Your task to perform on an android device: Go to notification settings Image 0: 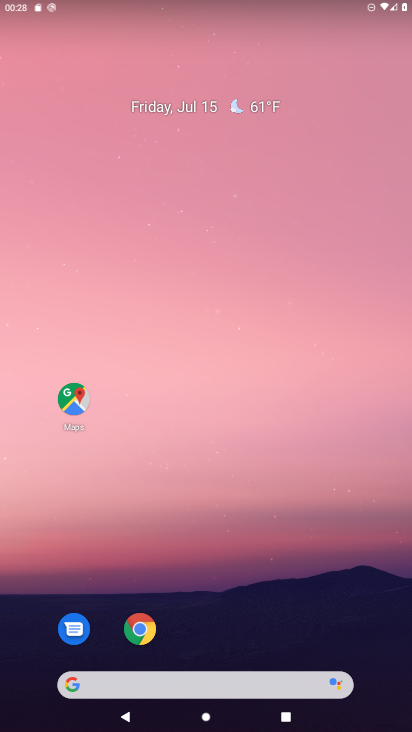
Step 0: drag from (182, 633) to (232, 24)
Your task to perform on an android device: Go to notification settings Image 1: 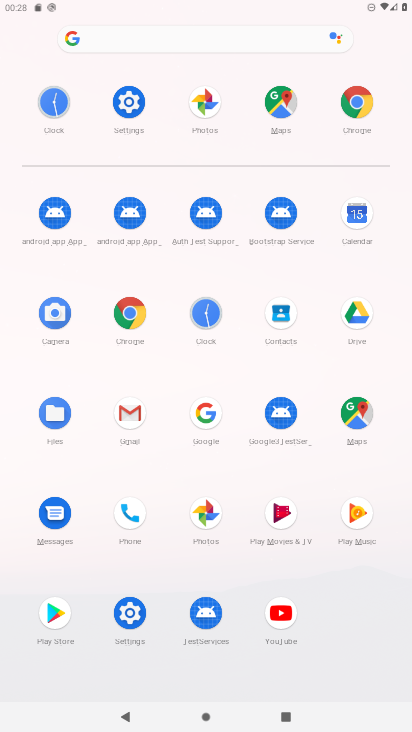
Step 1: click (125, 112)
Your task to perform on an android device: Go to notification settings Image 2: 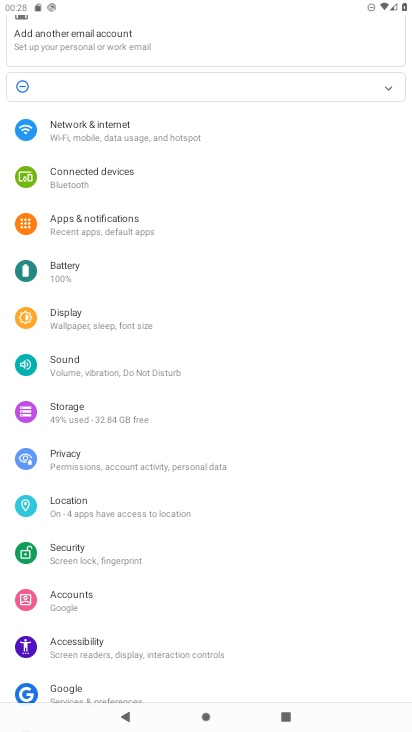
Step 2: click (120, 217)
Your task to perform on an android device: Go to notification settings Image 3: 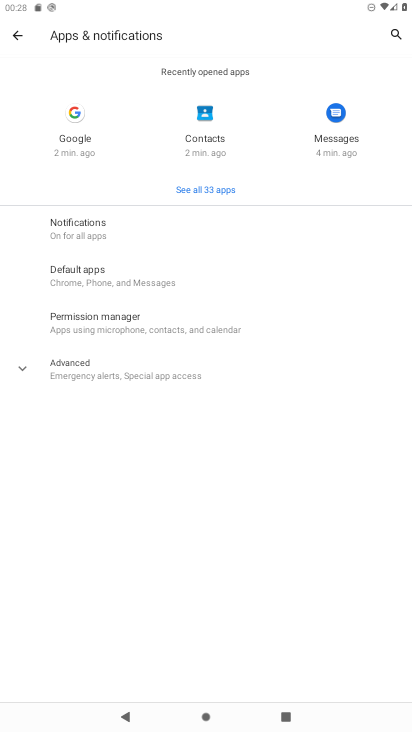
Step 3: task complete